Your task to perform on an android device: Go to internet settings Image 0: 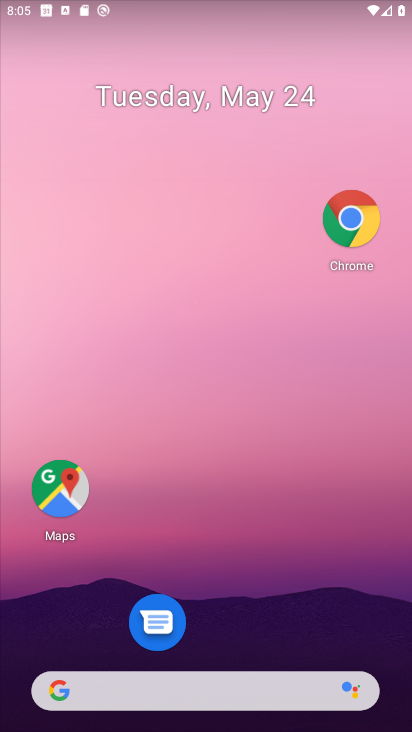
Step 0: press home button
Your task to perform on an android device: Go to internet settings Image 1: 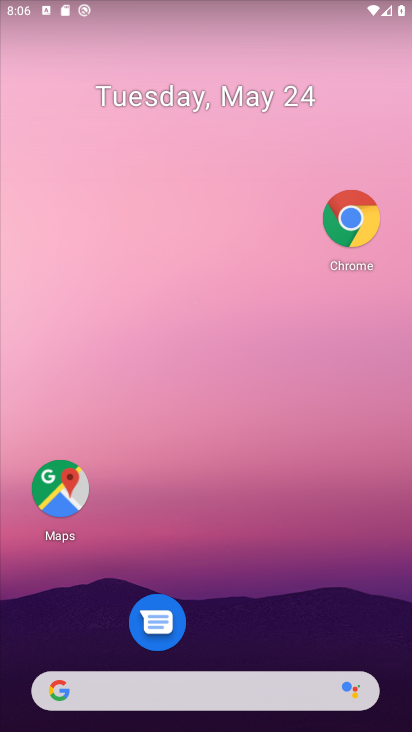
Step 1: drag from (284, 624) to (253, 168)
Your task to perform on an android device: Go to internet settings Image 2: 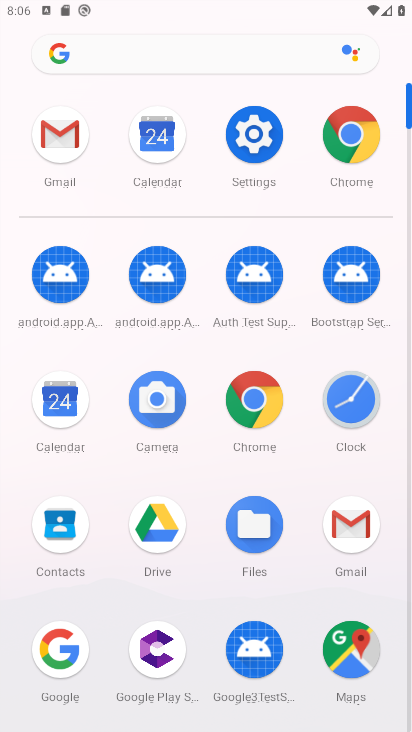
Step 2: click (238, 146)
Your task to perform on an android device: Go to internet settings Image 3: 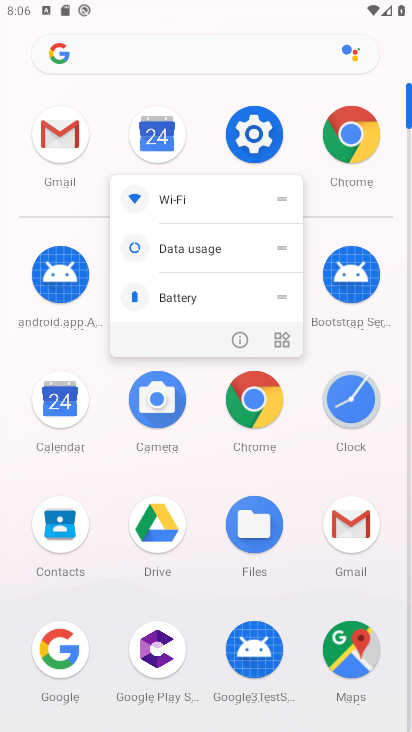
Step 3: click (252, 144)
Your task to perform on an android device: Go to internet settings Image 4: 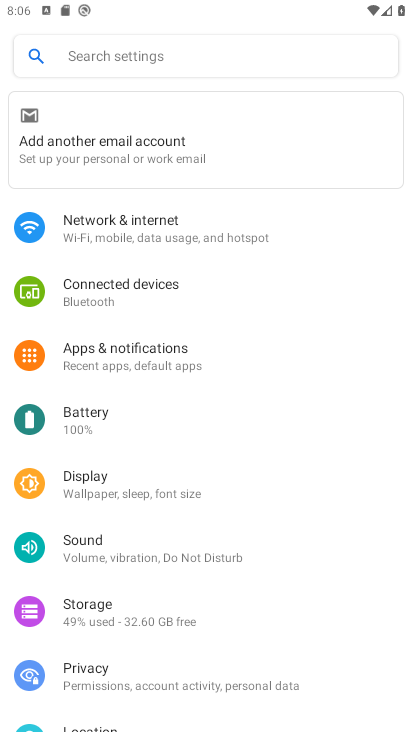
Step 4: click (150, 222)
Your task to perform on an android device: Go to internet settings Image 5: 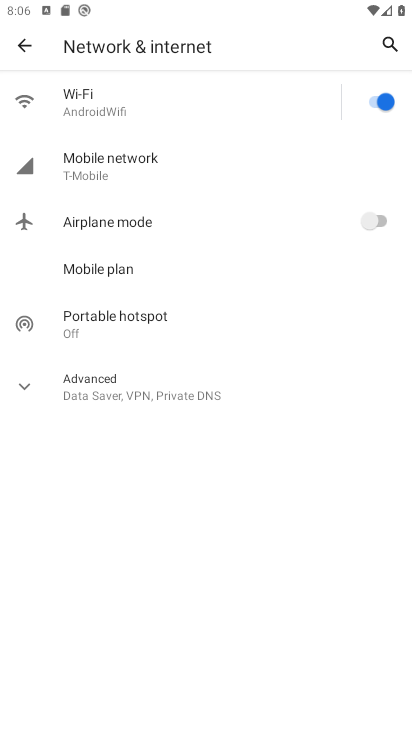
Step 5: task complete